Your task to perform on an android device: Go to Reddit.com Image 0: 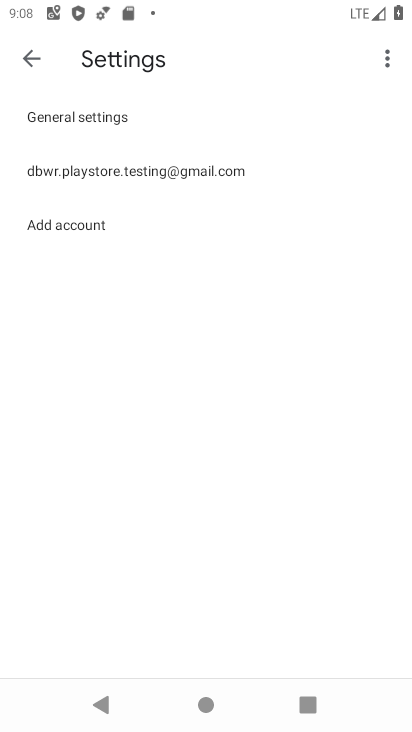
Step 0: press home button
Your task to perform on an android device: Go to Reddit.com Image 1: 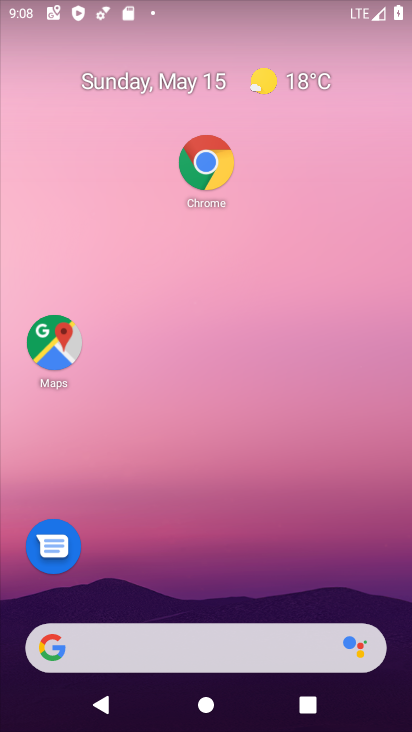
Step 1: drag from (292, 576) to (323, 221)
Your task to perform on an android device: Go to Reddit.com Image 2: 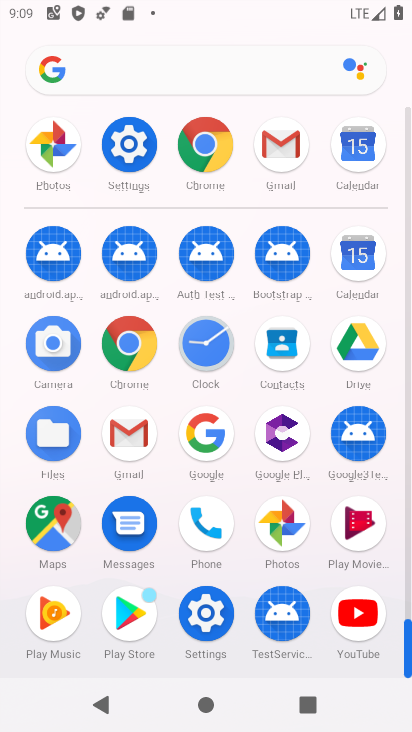
Step 2: click (127, 343)
Your task to perform on an android device: Go to Reddit.com Image 3: 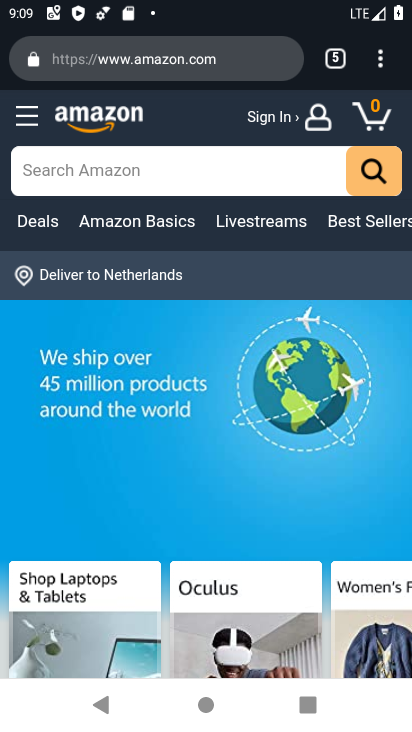
Step 3: click (361, 53)
Your task to perform on an android device: Go to Reddit.com Image 4: 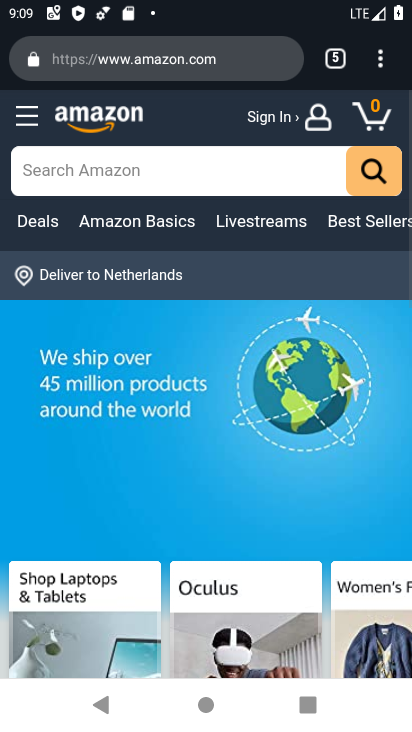
Step 4: click (371, 54)
Your task to perform on an android device: Go to Reddit.com Image 5: 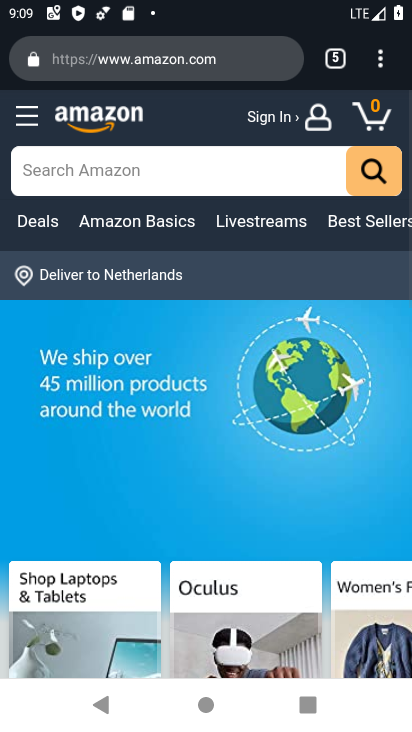
Step 5: click (402, 57)
Your task to perform on an android device: Go to Reddit.com Image 6: 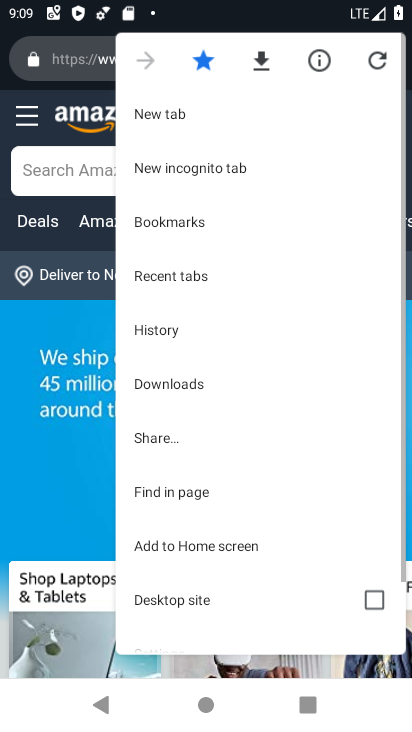
Step 6: click (156, 113)
Your task to perform on an android device: Go to Reddit.com Image 7: 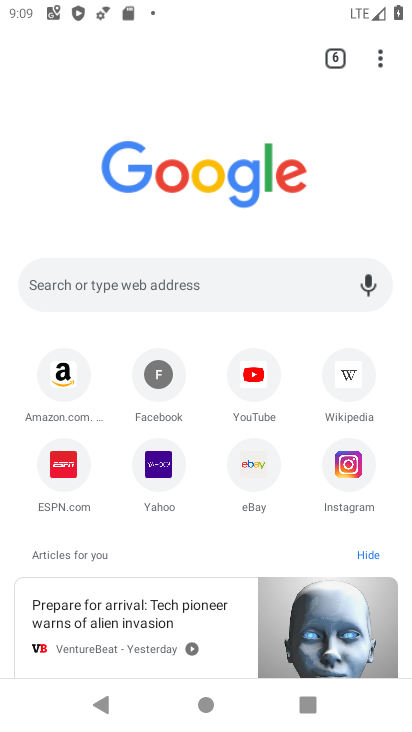
Step 7: click (178, 267)
Your task to perform on an android device: Go to Reddit.com Image 8: 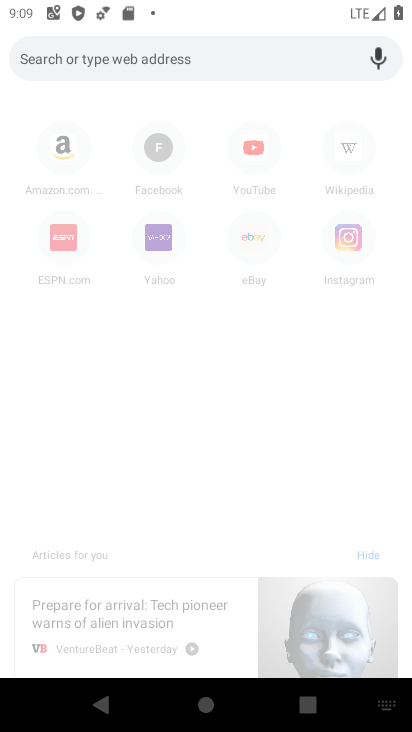
Step 8: click (232, 34)
Your task to perform on an android device: Go to Reddit.com Image 9: 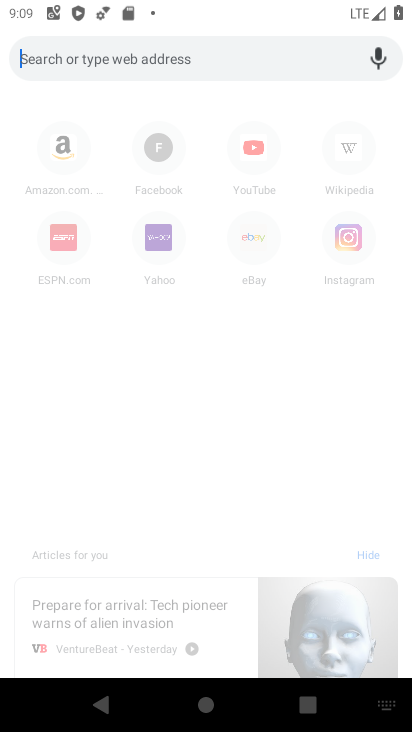
Step 9: type " Reddit.com"
Your task to perform on an android device: Go to Reddit.com Image 10: 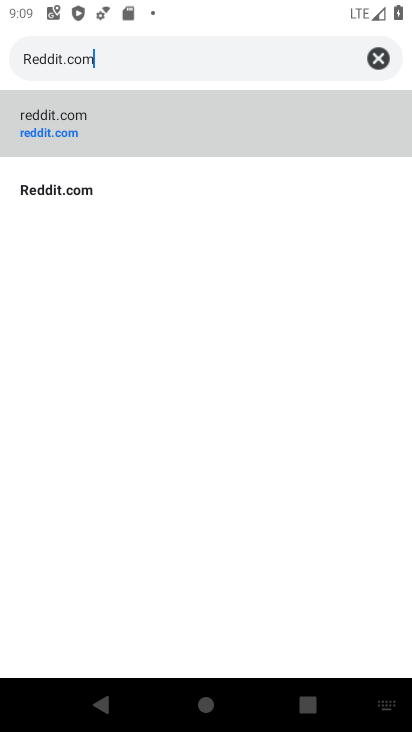
Step 10: click (128, 125)
Your task to perform on an android device: Go to Reddit.com Image 11: 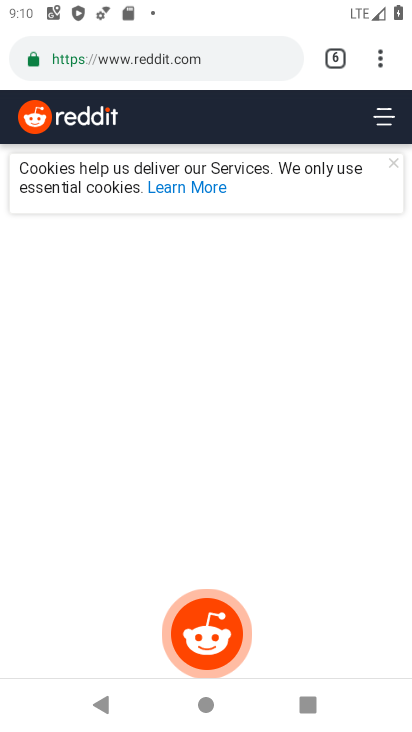
Step 11: task complete